Your task to perform on an android device: set the stopwatch Image 0: 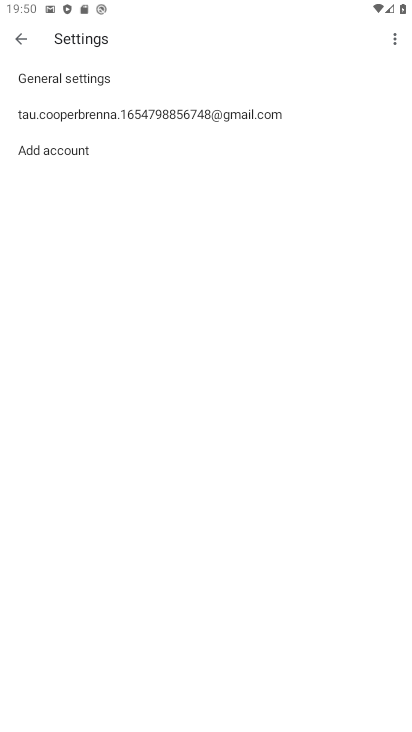
Step 0: press home button
Your task to perform on an android device: set the stopwatch Image 1: 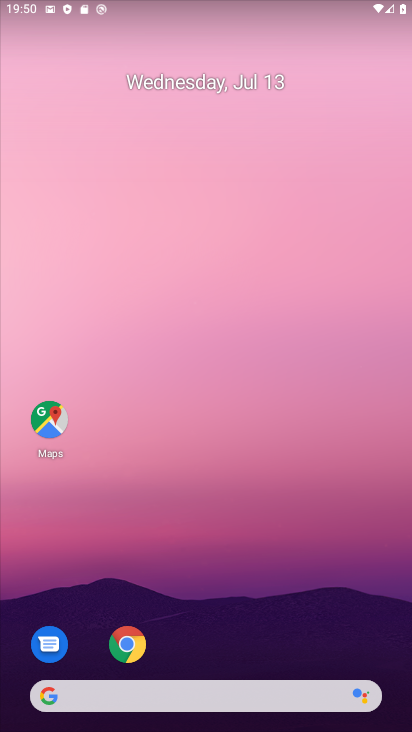
Step 1: drag from (218, 600) to (218, 113)
Your task to perform on an android device: set the stopwatch Image 2: 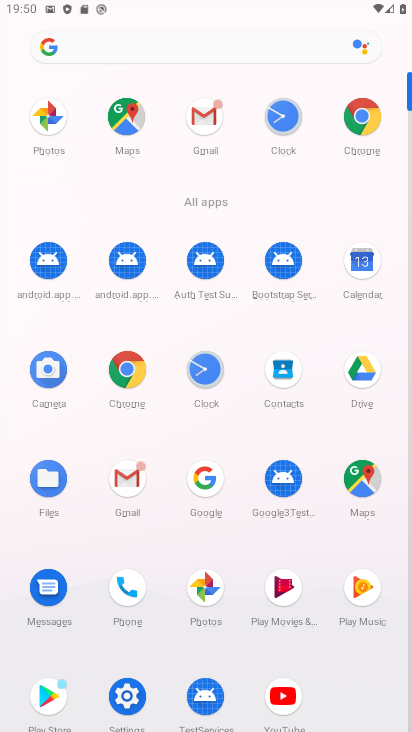
Step 2: click (289, 118)
Your task to perform on an android device: set the stopwatch Image 3: 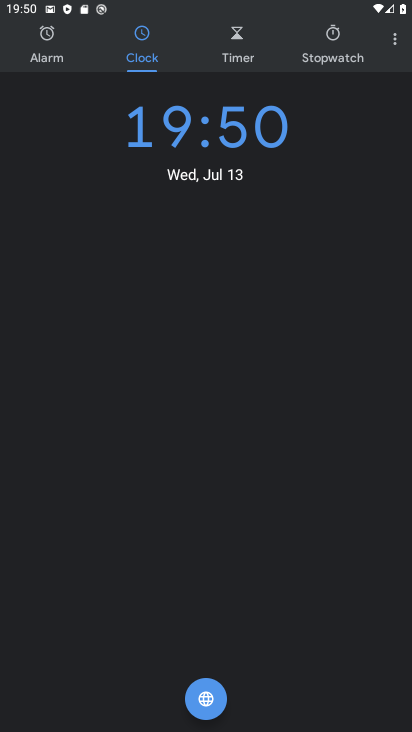
Step 3: click (324, 49)
Your task to perform on an android device: set the stopwatch Image 4: 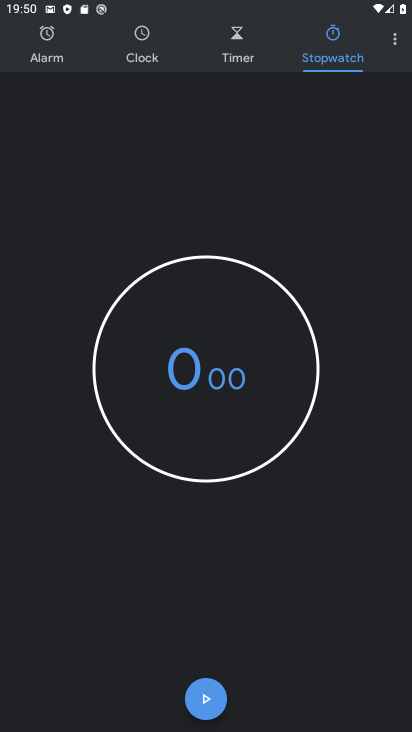
Step 4: click (212, 682)
Your task to perform on an android device: set the stopwatch Image 5: 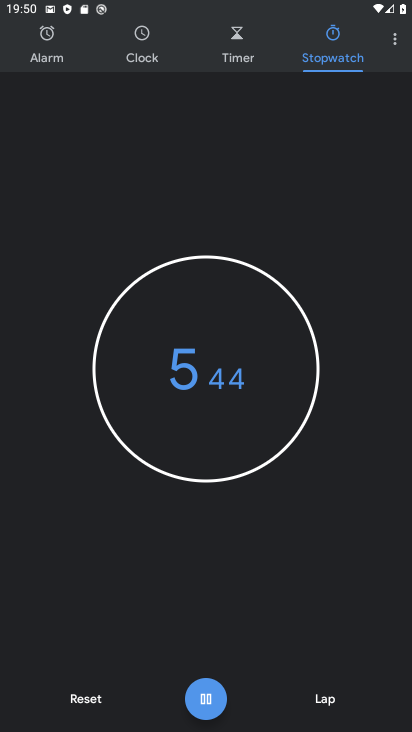
Step 5: task complete